Your task to perform on an android device: Go to ESPN.com Image 0: 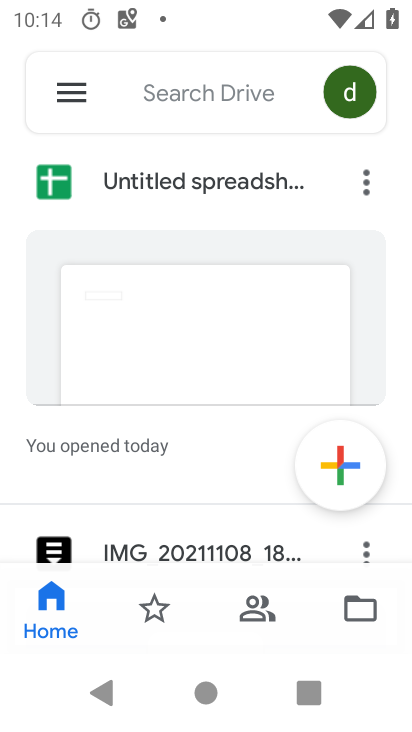
Step 0: press back button
Your task to perform on an android device: Go to ESPN.com Image 1: 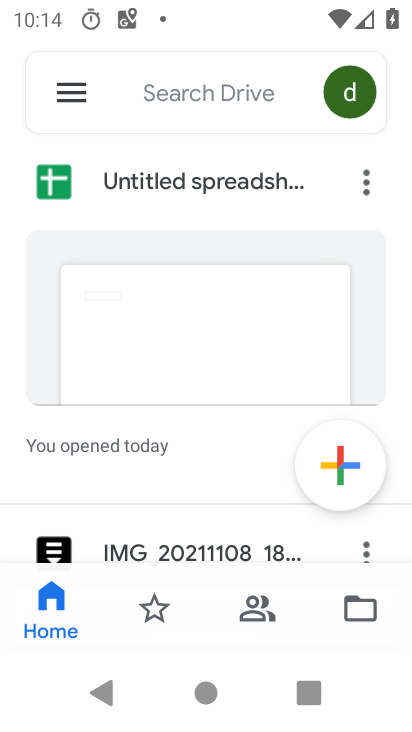
Step 1: press back button
Your task to perform on an android device: Go to ESPN.com Image 2: 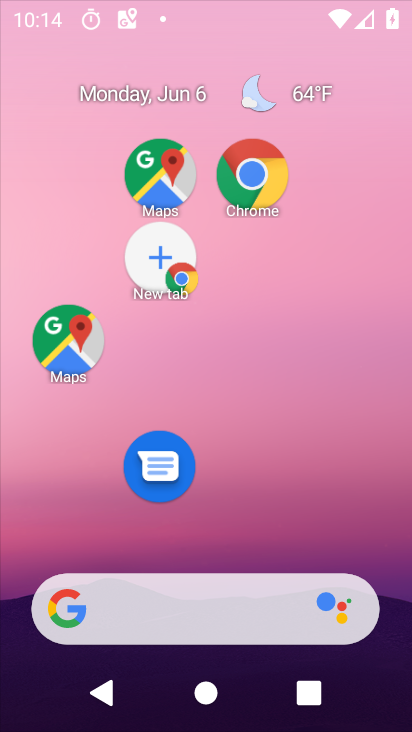
Step 2: press back button
Your task to perform on an android device: Go to ESPN.com Image 3: 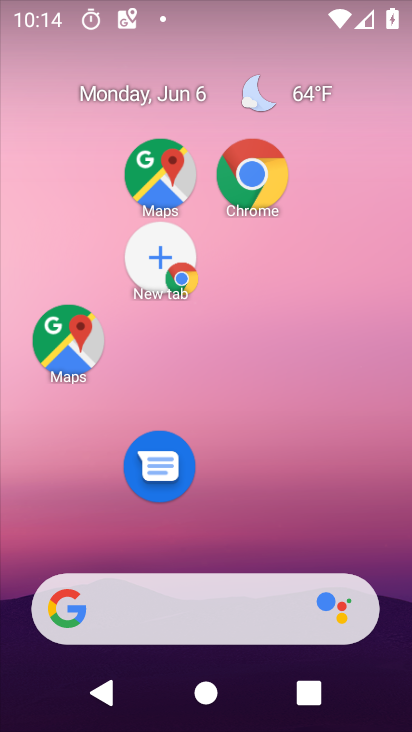
Step 3: press home button
Your task to perform on an android device: Go to ESPN.com Image 4: 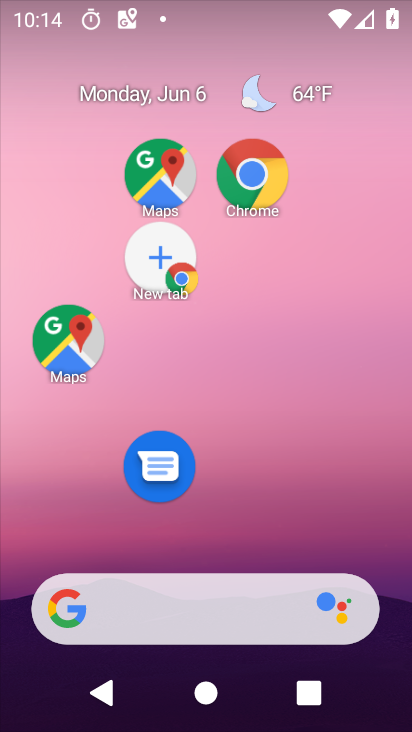
Step 4: drag from (245, 695) to (165, 118)
Your task to perform on an android device: Go to ESPN.com Image 5: 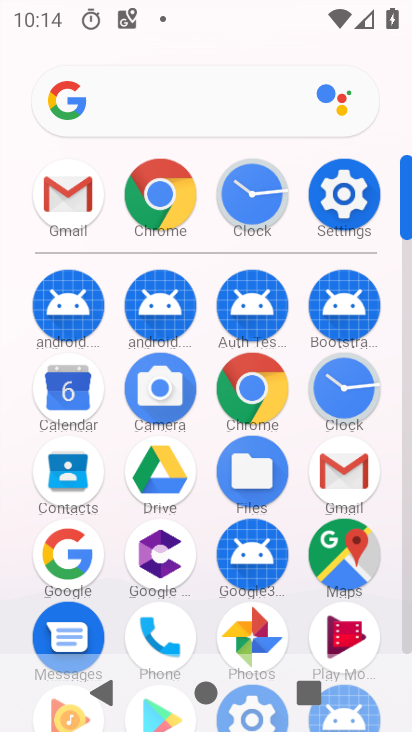
Step 5: drag from (260, 656) to (185, 201)
Your task to perform on an android device: Go to ESPN.com Image 6: 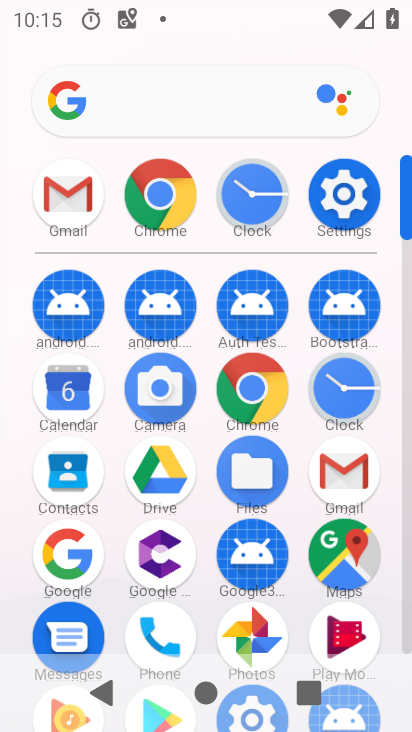
Step 6: click (163, 199)
Your task to perform on an android device: Go to ESPN.com Image 7: 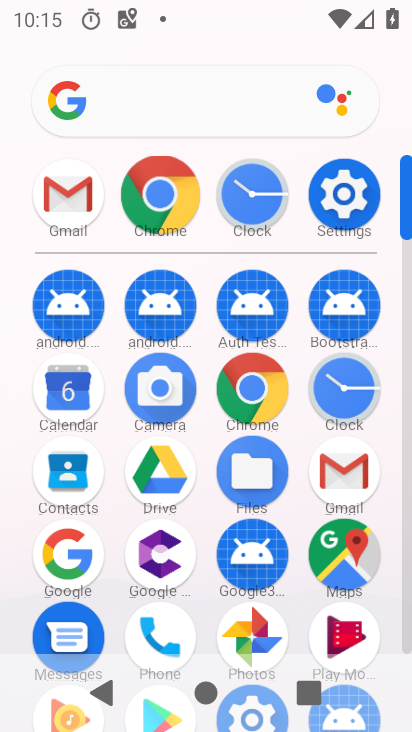
Step 7: click (163, 199)
Your task to perform on an android device: Go to ESPN.com Image 8: 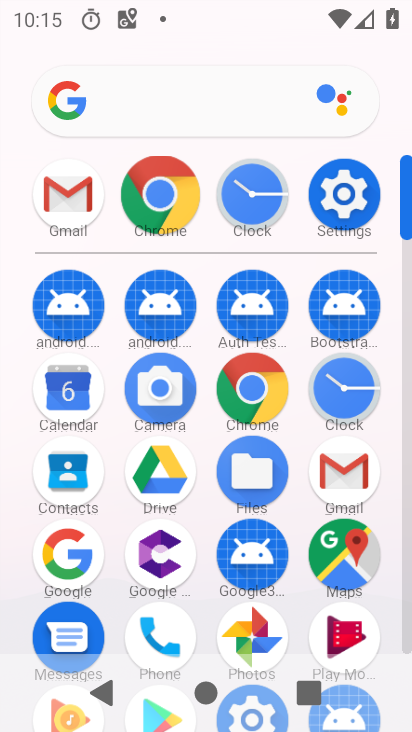
Step 8: click (163, 199)
Your task to perform on an android device: Go to ESPN.com Image 9: 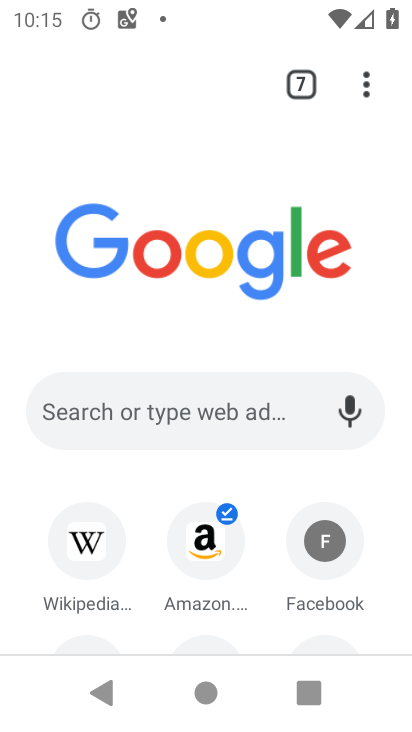
Step 9: drag from (284, 562) to (189, 277)
Your task to perform on an android device: Go to ESPN.com Image 10: 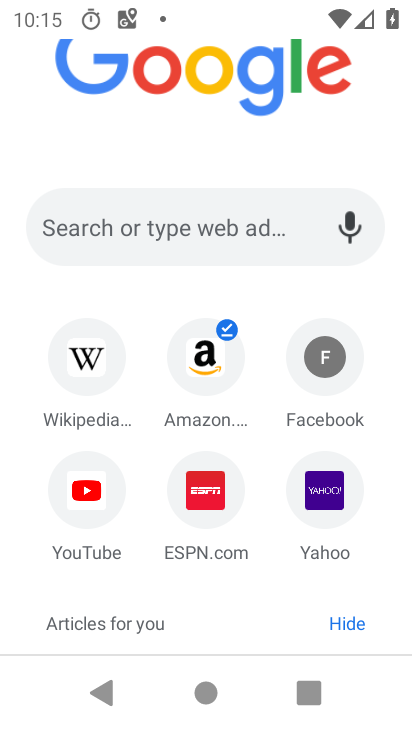
Step 10: drag from (258, 492) to (191, 258)
Your task to perform on an android device: Go to ESPN.com Image 11: 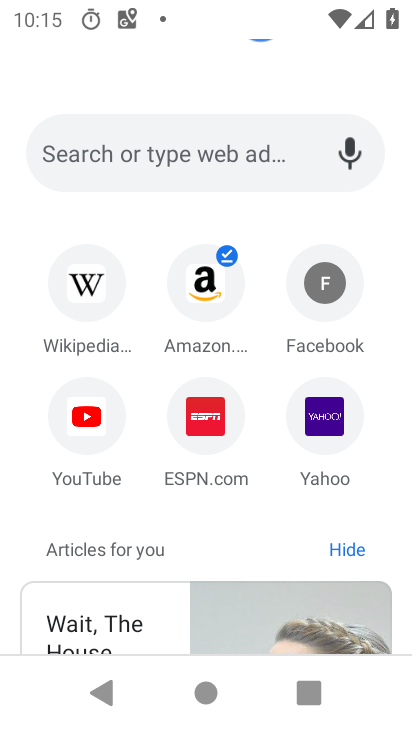
Step 11: drag from (172, 322) to (146, 176)
Your task to perform on an android device: Go to ESPN.com Image 12: 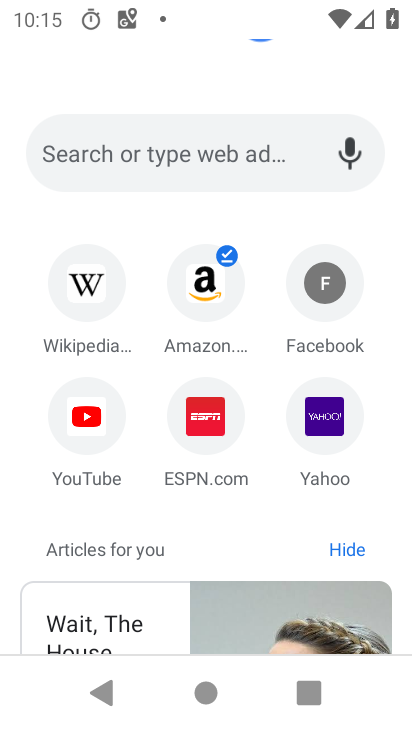
Step 12: click (199, 410)
Your task to perform on an android device: Go to ESPN.com Image 13: 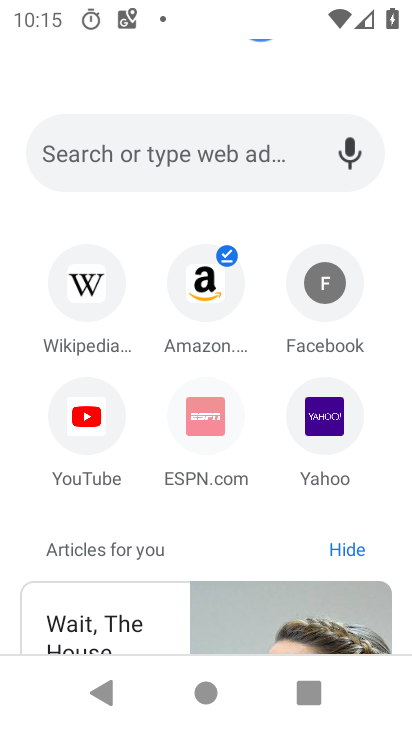
Step 13: click (200, 404)
Your task to perform on an android device: Go to ESPN.com Image 14: 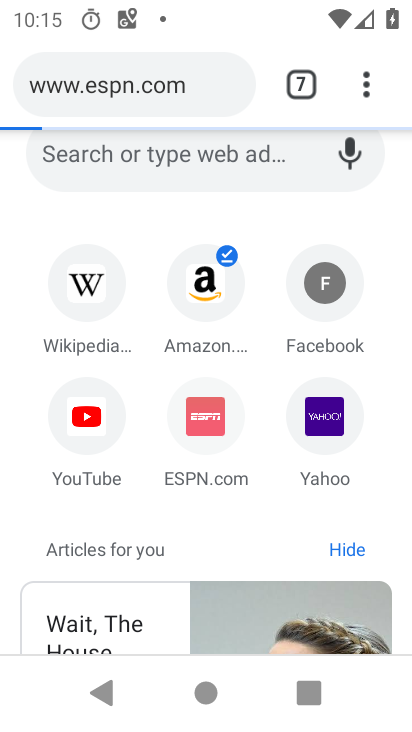
Step 14: click (201, 404)
Your task to perform on an android device: Go to ESPN.com Image 15: 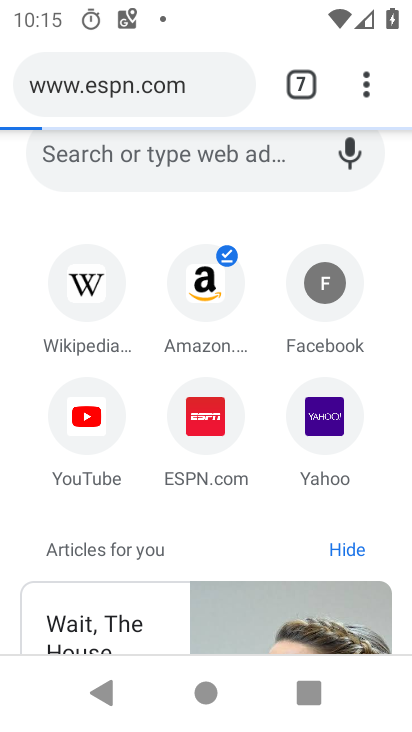
Step 15: click (201, 404)
Your task to perform on an android device: Go to ESPN.com Image 16: 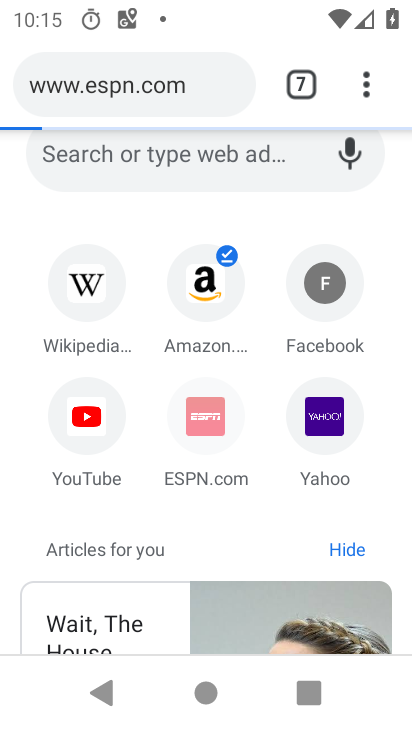
Step 16: click (202, 404)
Your task to perform on an android device: Go to ESPN.com Image 17: 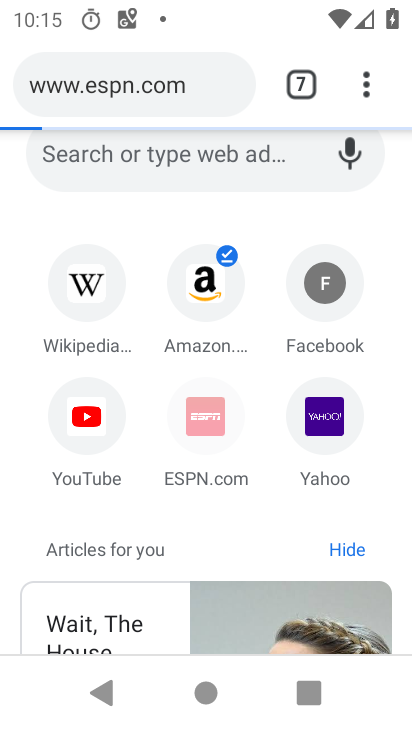
Step 17: click (202, 404)
Your task to perform on an android device: Go to ESPN.com Image 18: 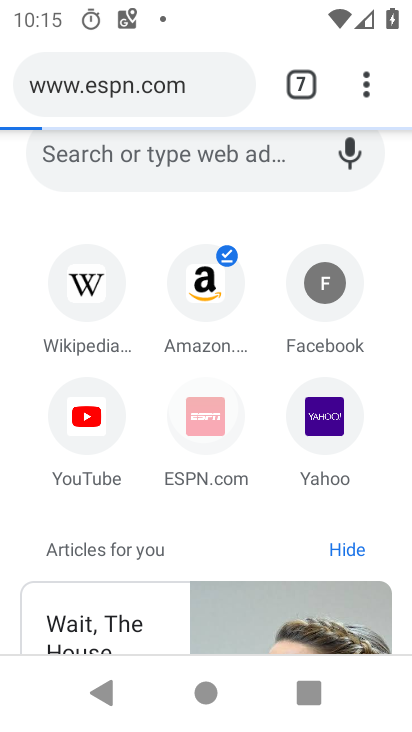
Step 18: click (204, 404)
Your task to perform on an android device: Go to ESPN.com Image 19: 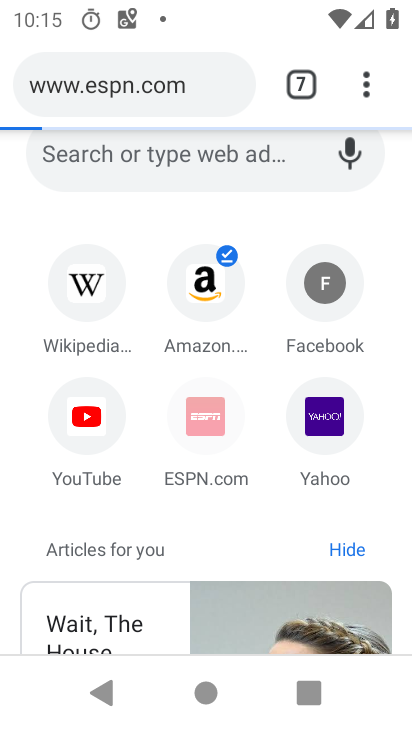
Step 19: click (206, 404)
Your task to perform on an android device: Go to ESPN.com Image 20: 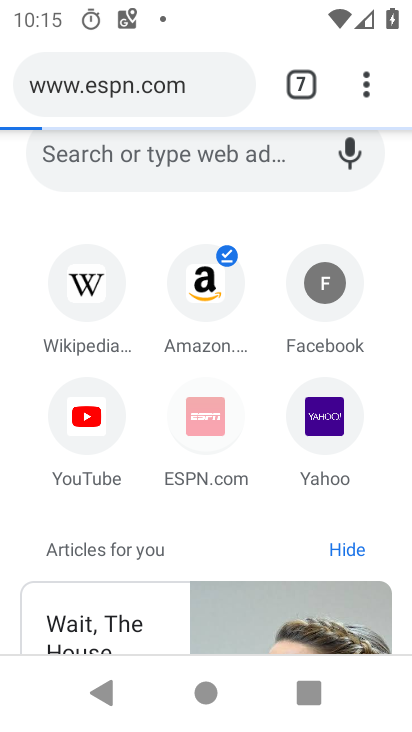
Step 20: click (206, 404)
Your task to perform on an android device: Go to ESPN.com Image 21: 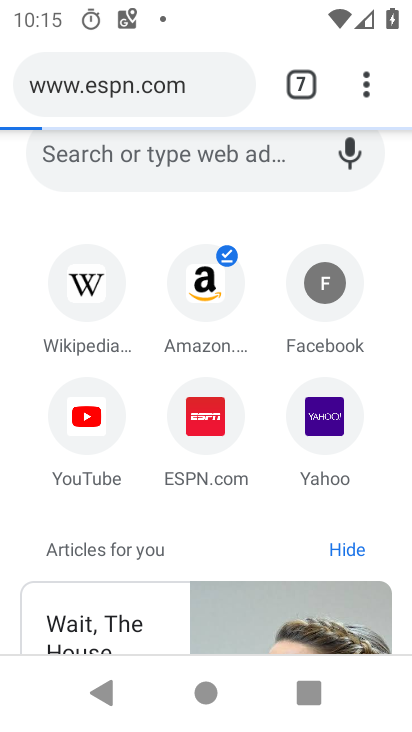
Step 21: click (216, 420)
Your task to perform on an android device: Go to ESPN.com Image 22: 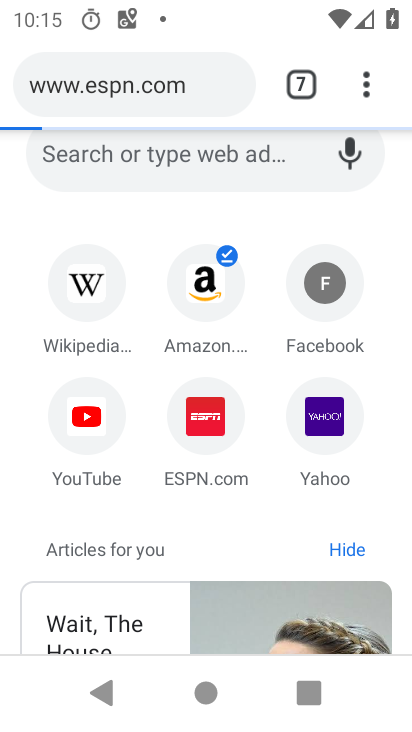
Step 22: click (217, 427)
Your task to perform on an android device: Go to ESPN.com Image 23: 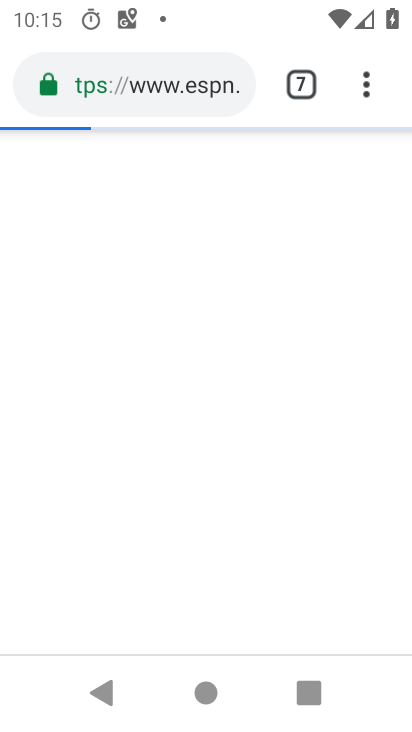
Step 23: click (214, 425)
Your task to perform on an android device: Go to ESPN.com Image 24: 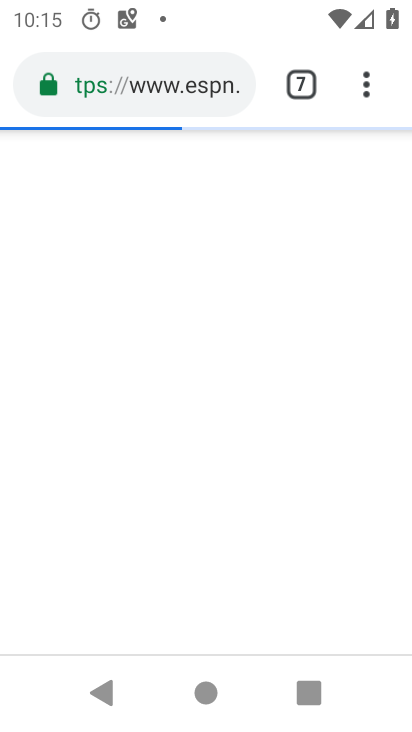
Step 24: click (216, 424)
Your task to perform on an android device: Go to ESPN.com Image 25: 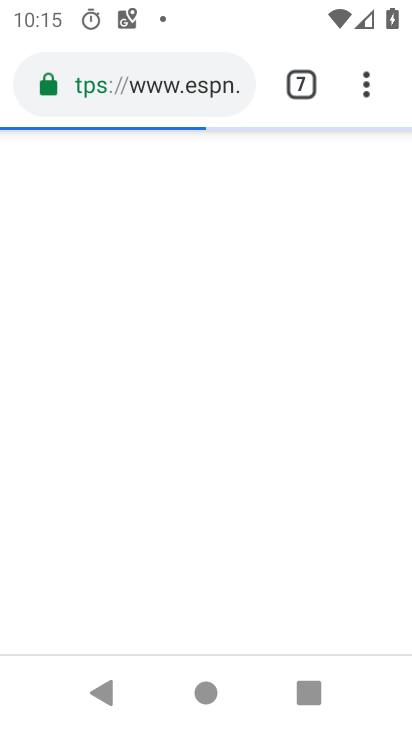
Step 25: click (217, 424)
Your task to perform on an android device: Go to ESPN.com Image 26: 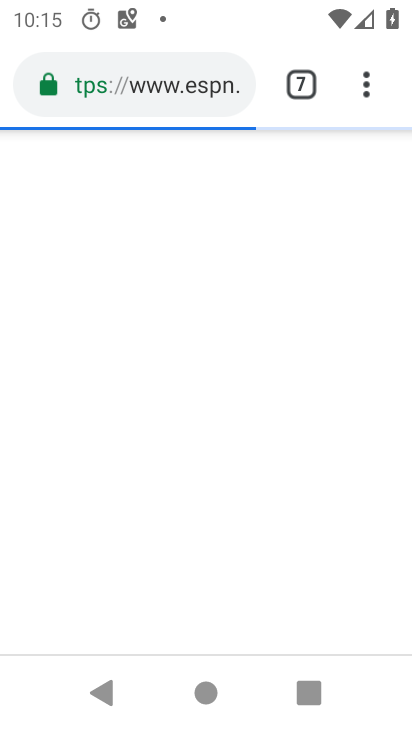
Step 26: click (218, 424)
Your task to perform on an android device: Go to ESPN.com Image 27: 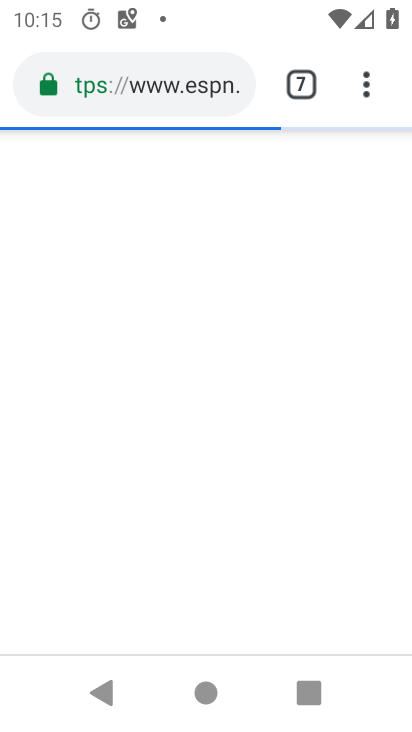
Step 27: click (217, 424)
Your task to perform on an android device: Go to ESPN.com Image 28: 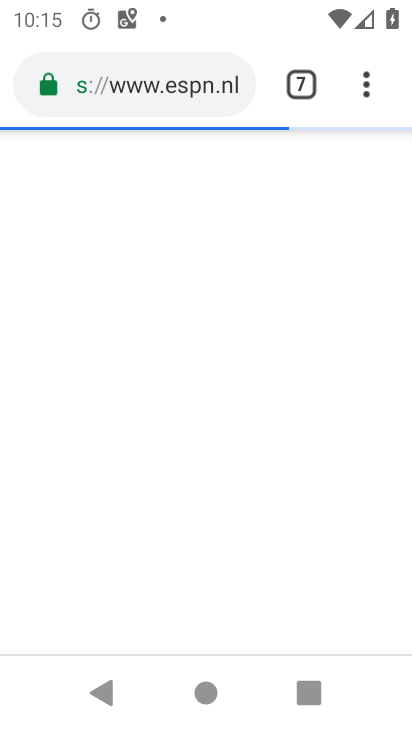
Step 28: task complete